Your task to perform on an android device: turn off wifi Image 0: 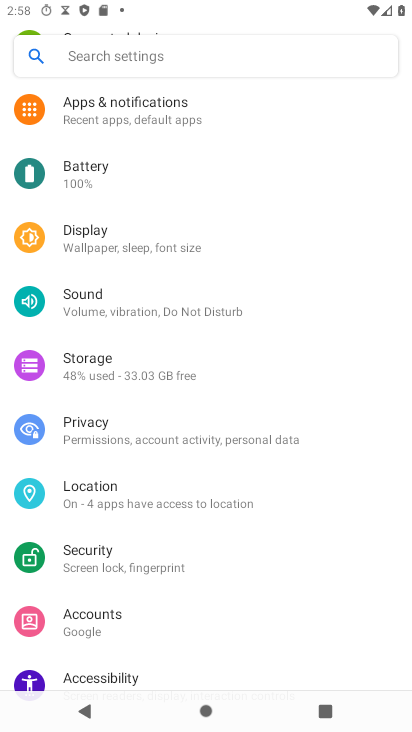
Step 0: press home button
Your task to perform on an android device: turn off wifi Image 1: 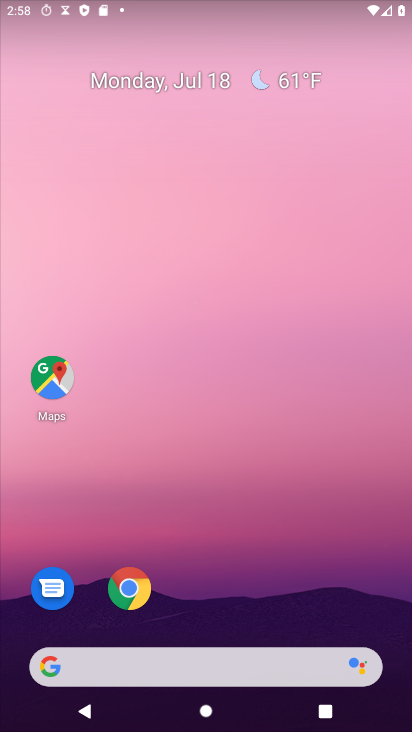
Step 1: drag from (230, 472) to (8, 225)
Your task to perform on an android device: turn off wifi Image 2: 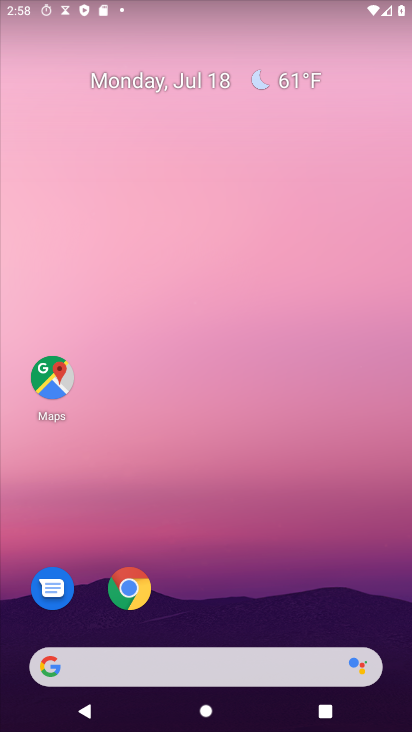
Step 2: drag from (225, 521) to (75, 6)
Your task to perform on an android device: turn off wifi Image 3: 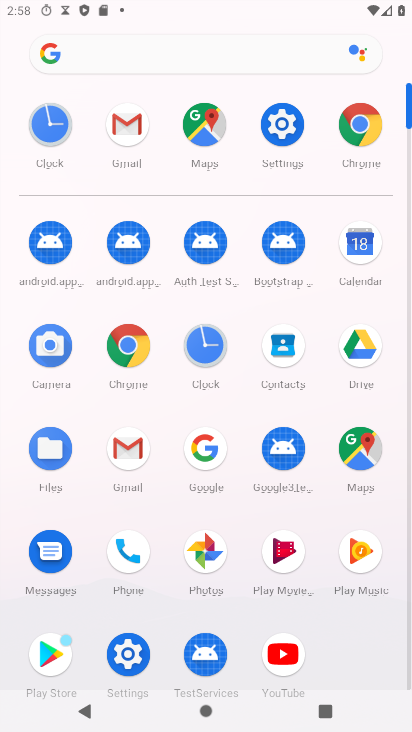
Step 3: click (281, 109)
Your task to perform on an android device: turn off wifi Image 4: 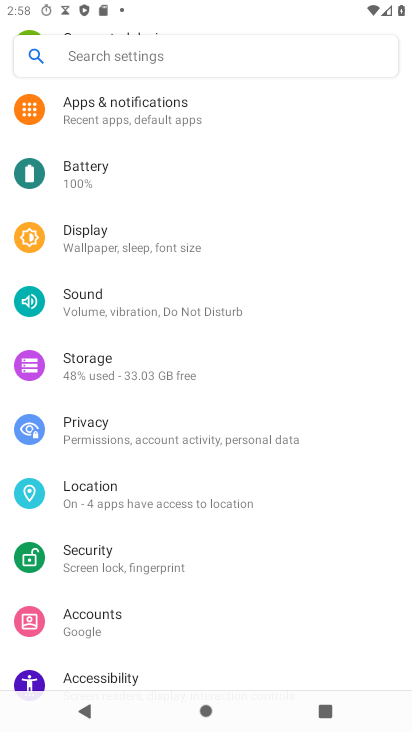
Step 4: drag from (160, 195) to (79, 703)
Your task to perform on an android device: turn off wifi Image 5: 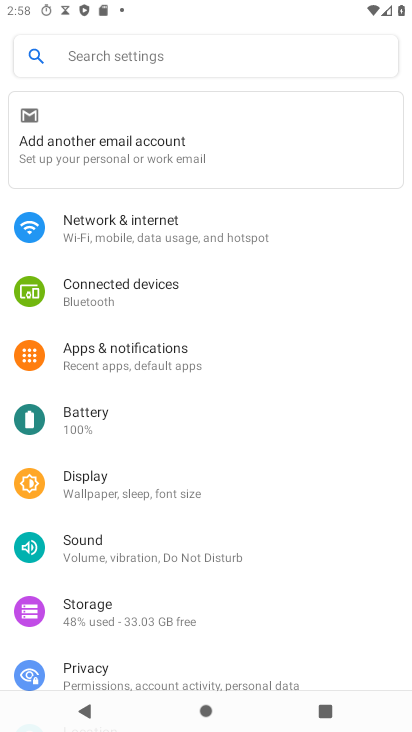
Step 5: click (106, 215)
Your task to perform on an android device: turn off wifi Image 6: 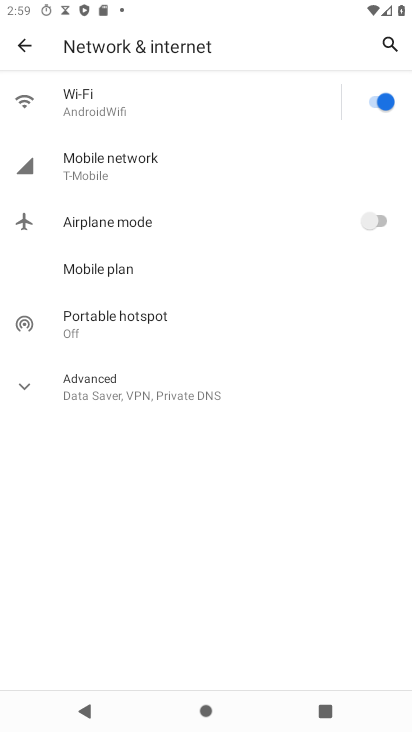
Step 6: click (375, 105)
Your task to perform on an android device: turn off wifi Image 7: 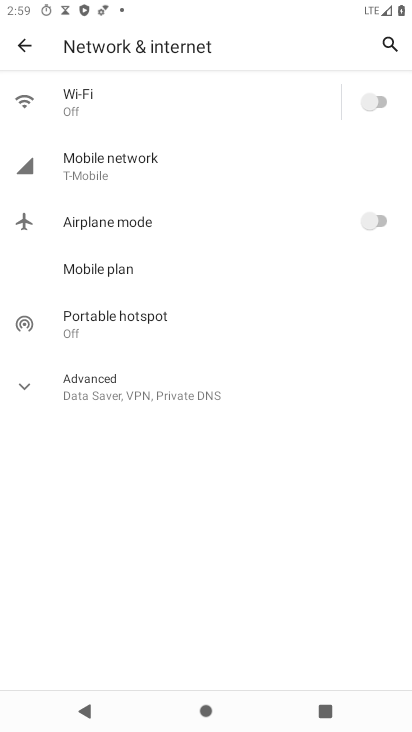
Step 7: task complete